Your task to perform on an android device: Search for Mexican restaurants on Maps Image 0: 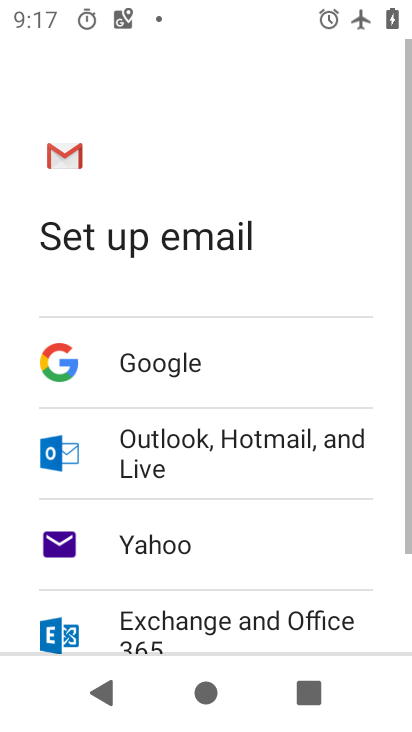
Step 0: press home button
Your task to perform on an android device: Search for Mexican restaurants on Maps Image 1: 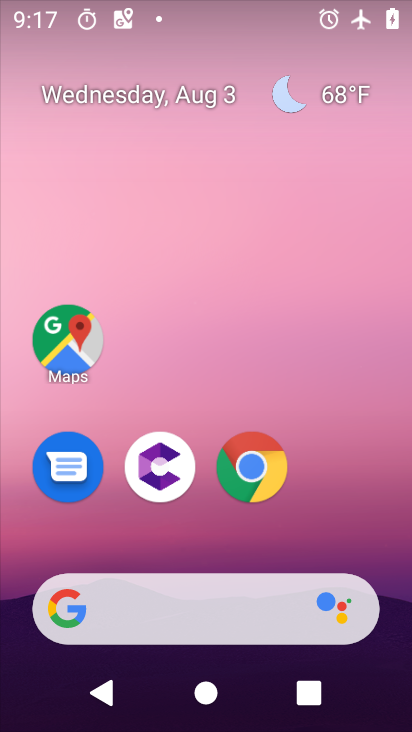
Step 1: drag from (364, 529) to (311, 111)
Your task to perform on an android device: Search for Mexican restaurants on Maps Image 2: 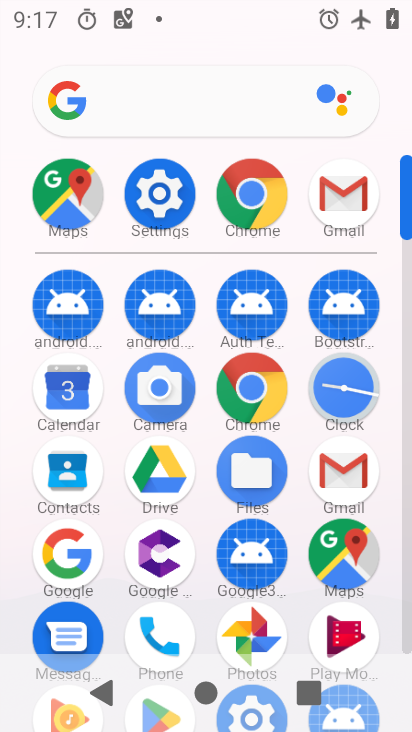
Step 2: click (348, 537)
Your task to perform on an android device: Search for Mexican restaurants on Maps Image 3: 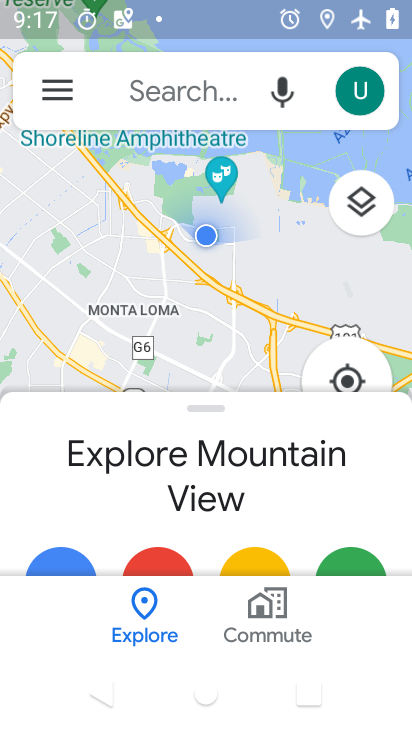
Step 3: click (170, 98)
Your task to perform on an android device: Search for Mexican restaurants on Maps Image 4: 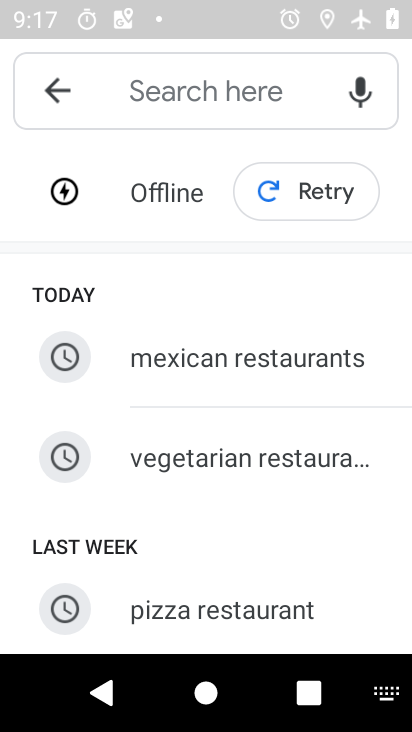
Step 4: click (230, 354)
Your task to perform on an android device: Search for Mexican restaurants on Maps Image 5: 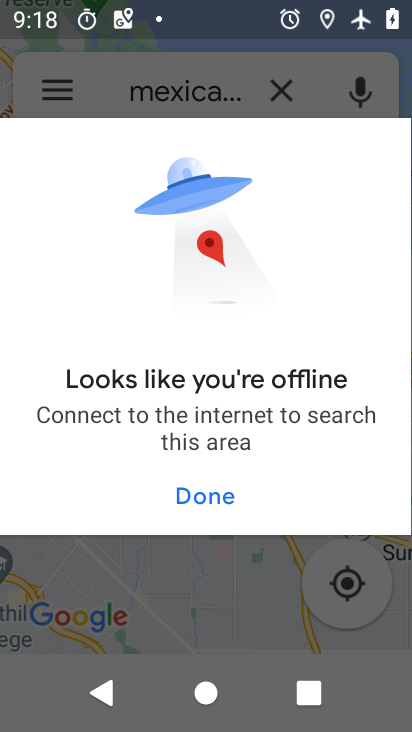
Step 5: task complete